Your task to perform on an android device: change keyboard looks Image 0: 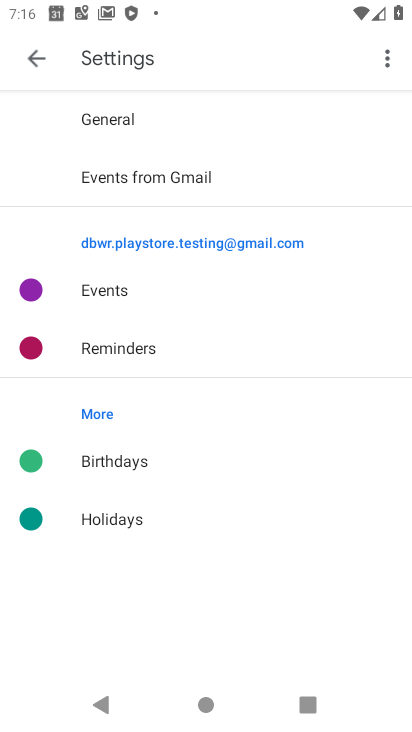
Step 0: press home button
Your task to perform on an android device: change keyboard looks Image 1: 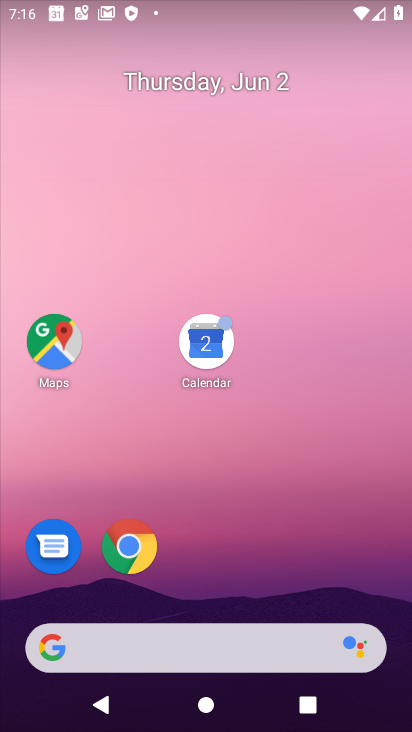
Step 1: drag from (246, 680) to (149, 88)
Your task to perform on an android device: change keyboard looks Image 2: 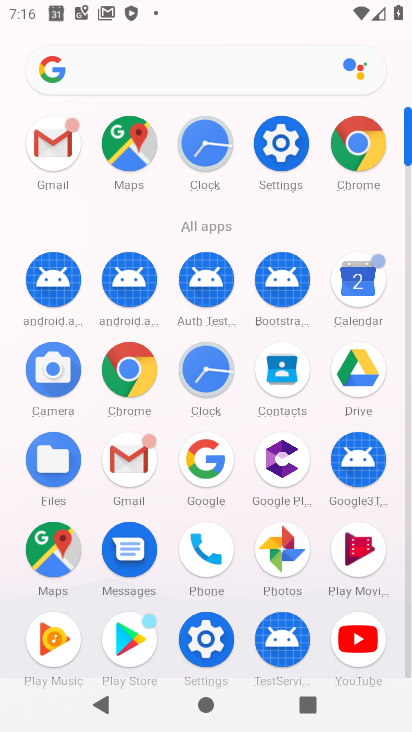
Step 2: click (278, 147)
Your task to perform on an android device: change keyboard looks Image 3: 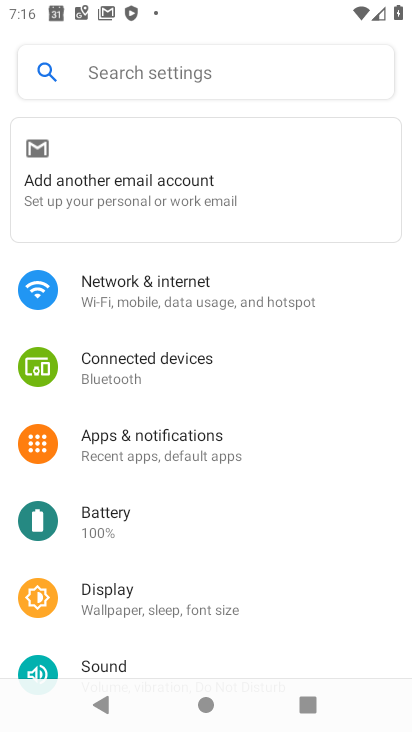
Step 3: click (173, 81)
Your task to perform on an android device: change keyboard looks Image 4: 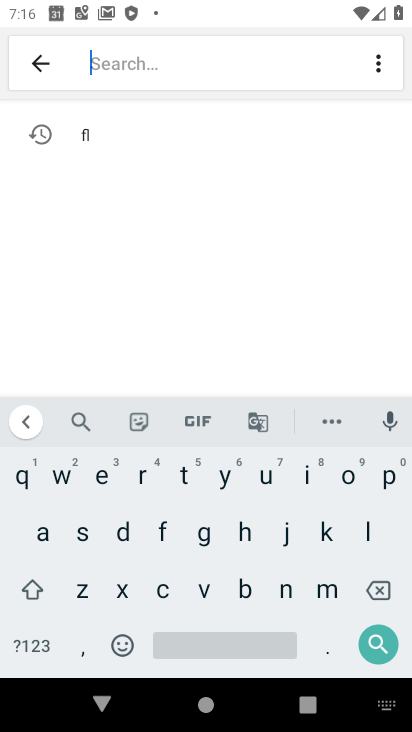
Step 4: click (324, 538)
Your task to perform on an android device: change keyboard looks Image 5: 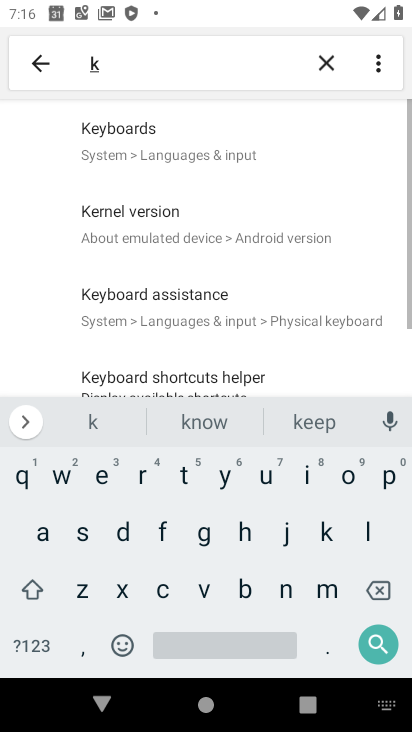
Step 5: click (101, 473)
Your task to perform on an android device: change keyboard looks Image 6: 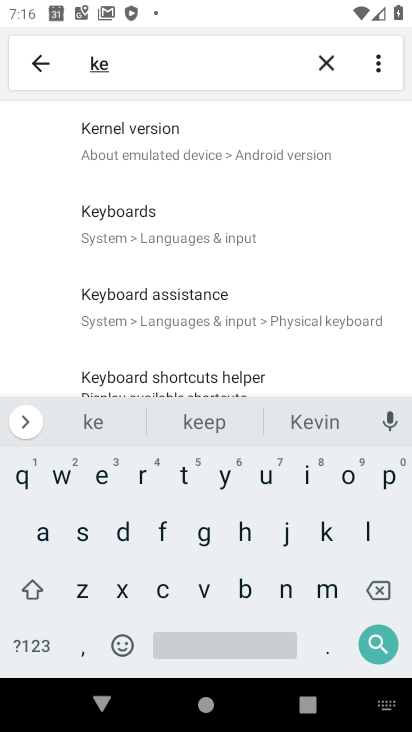
Step 6: click (167, 235)
Your task to perform on an android device: change keyboard looks Image 7: 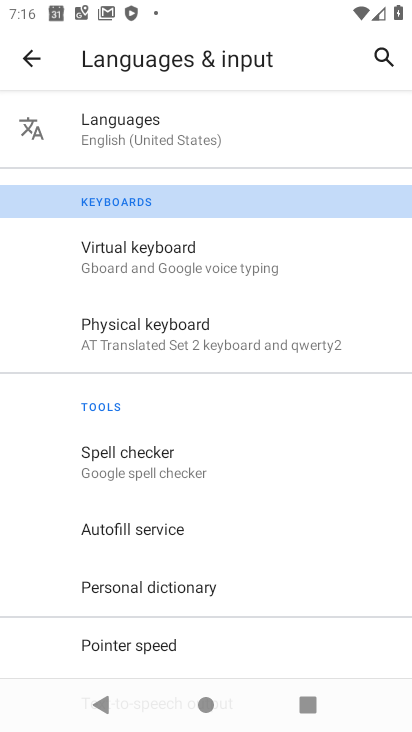
Step 7: click (154, 264)
Your task to perform on an android device: change keyboard looks Image 8: 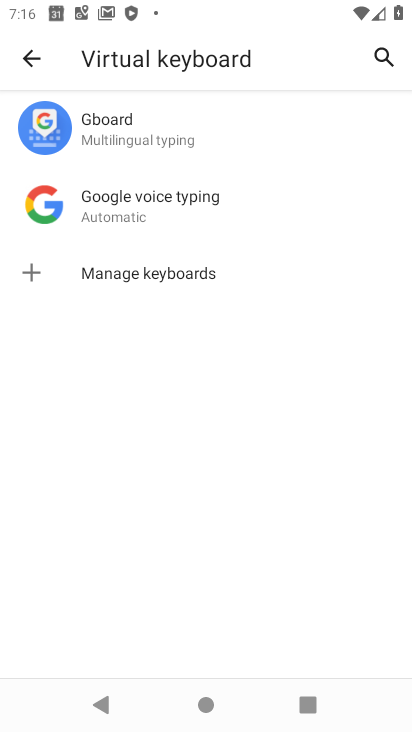
Step 8: click (129, 132)
Your task to perform on an android device: change keyboard looks Image 9: 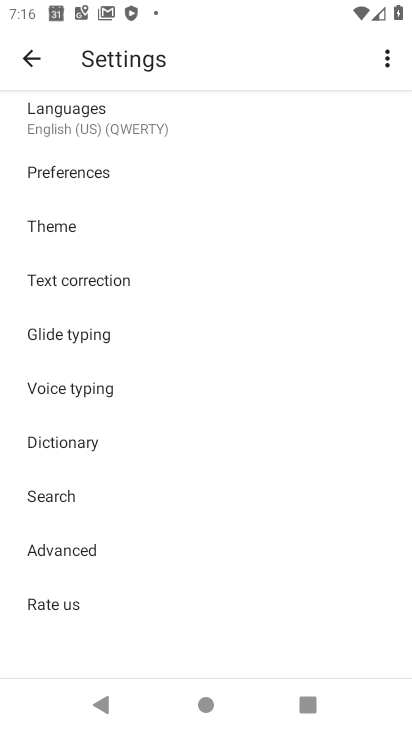
Step 9: click (109, 234)
Your task to perform on an android device: change keyboard looks Image 10: 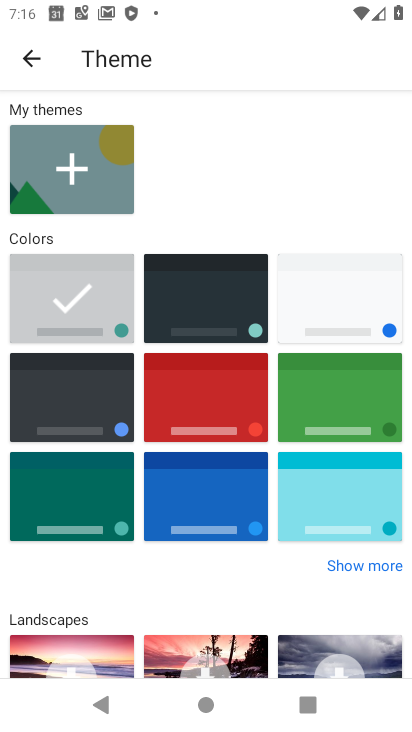
Step 10: click (188, 301)
Your task to perform on an android device: change keyboard looks Image 11: 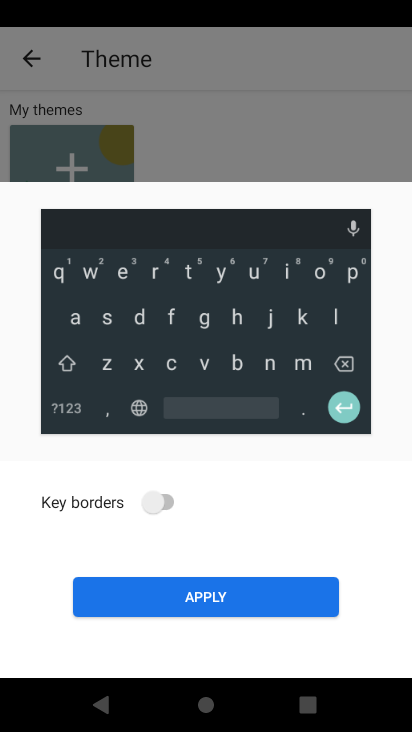
Step 11: click (161, 503)
Your task to perform on an android device: change keyboard looks Image 12: 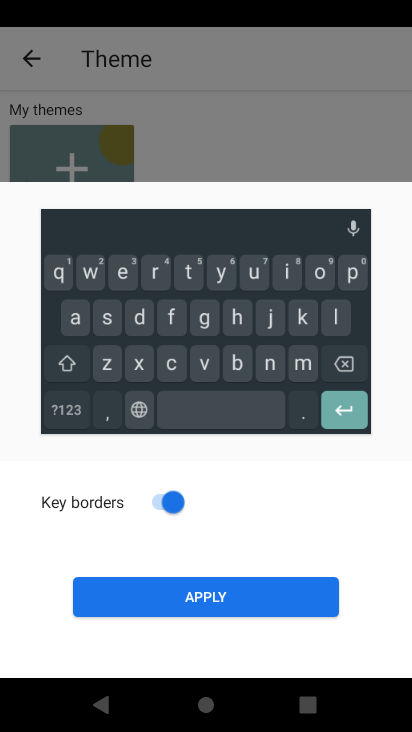
Step 12: click (222, 583)
Your task to perform on an android device: change keyboard looks Image 13: 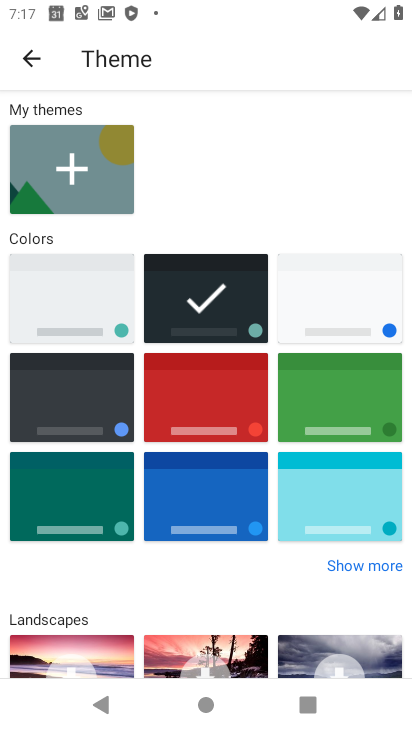
Step 13: task complete